Your task to perform on an android device: turn on the 24-hour format for clock Image 0: 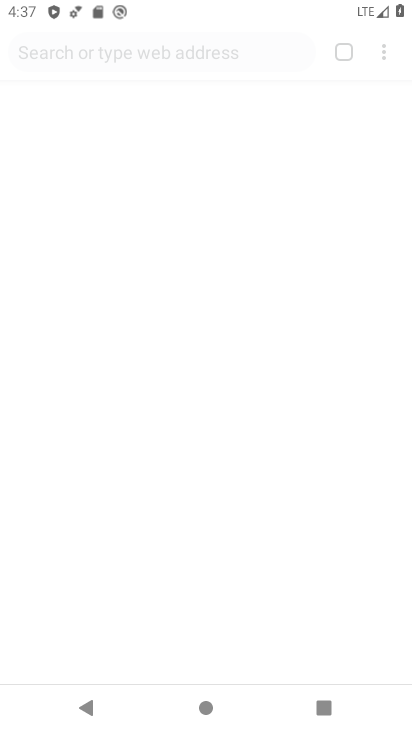
Step 0: drag from (280, 556) to (190, 72)
Your task to perform on an android device: turn on the 24-hour format for clock Image 1: 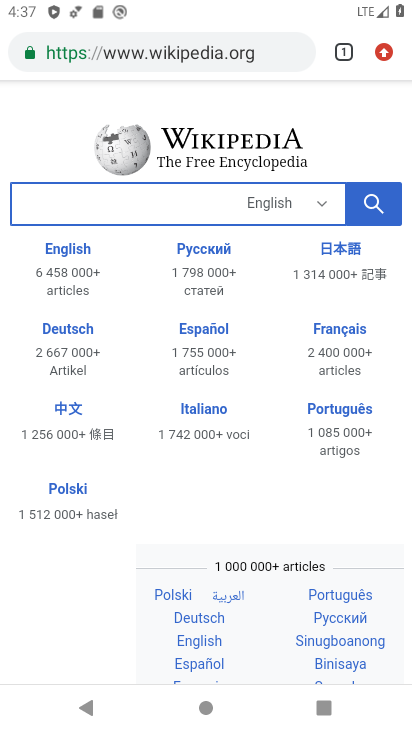
Step 1: press back button
Your task to perform on an android device: turn on the 24-hour format for clock Image 2: 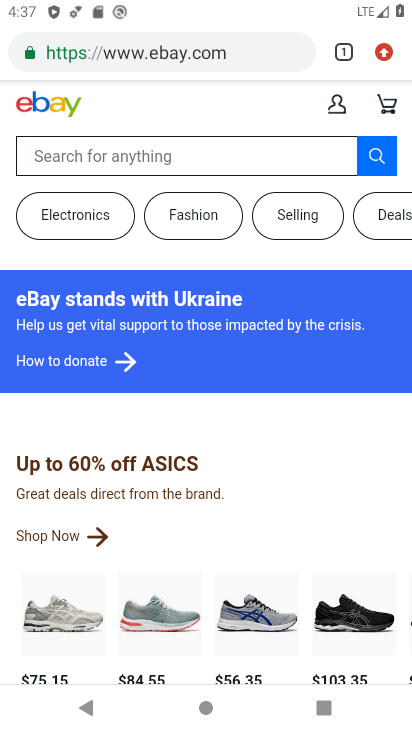
Step 2: press back button
Your task to perform on an android device: turn on the 24-hour format for clock Image 3: 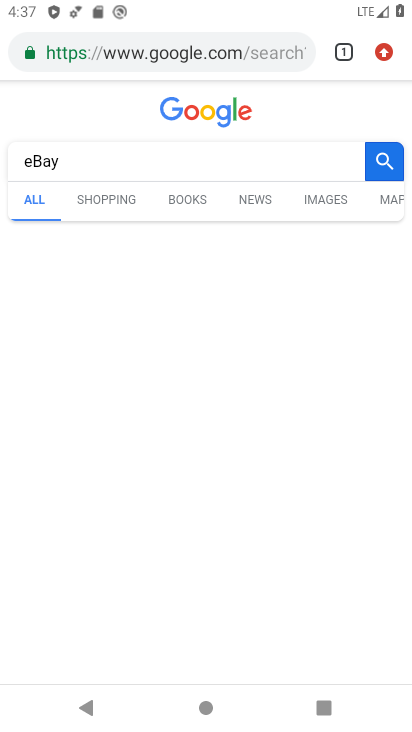
Step 3: press back button
Your task to perform on an android device: turn on the 24-hour format for clock Image 4: 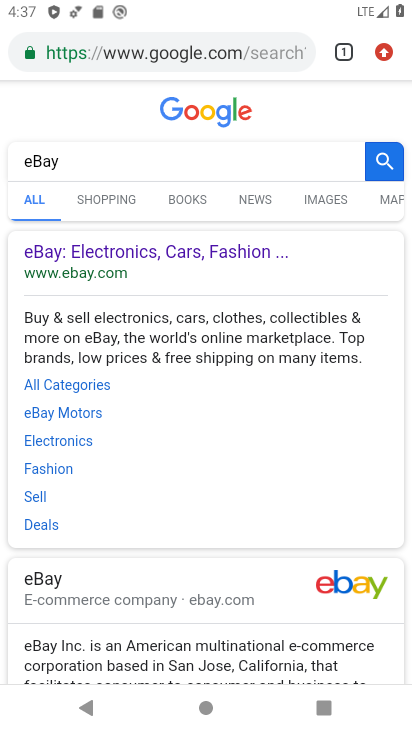
Step 4: press back button
Your task to perform on an android device: turn on the 24-hour format for clock Image 5: 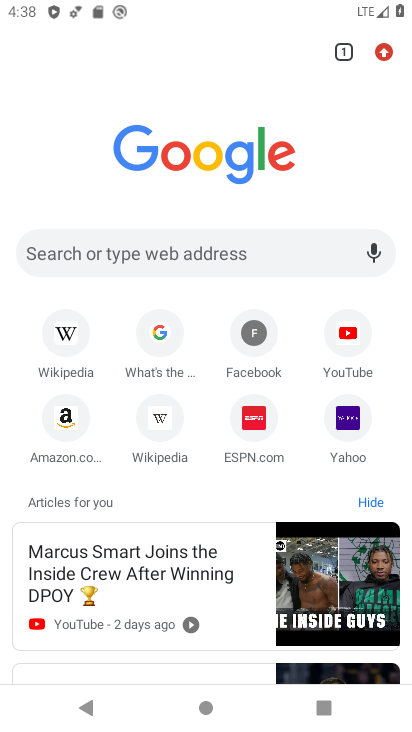
Step 5: press back button
Your task to perform on an android device: turn on the 24-hour format for clock Image 6: 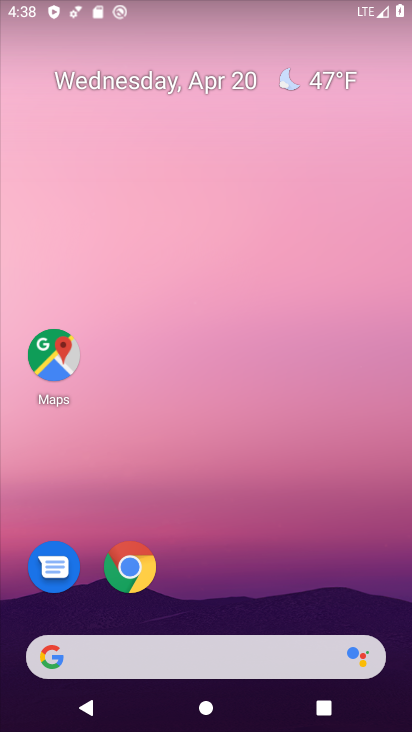
Step 6: drag from (250, 241) to (237, 31)
Your task to perform on an android device: turn on the 24-hour format for clock Image 7: 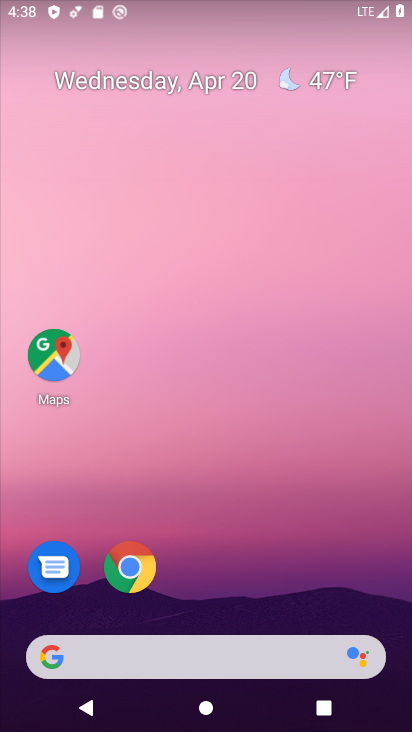
Step 7: drag from (407, 648) to (357, 47)
Your task to perform on an android device: turn on the 24-hour format for clock Image 8: 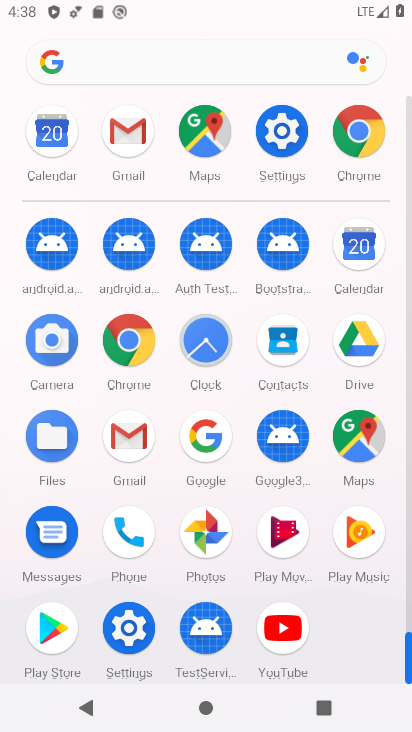
Step 8: click (203, 340)
Your task to perform on an android device: turn on the 24-hour format for clock Image 9: 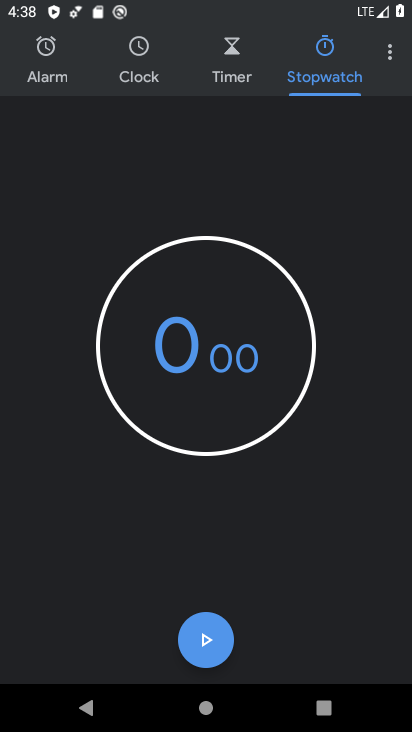
Step 9: click (376, 62)
Your task to perform on an android device: turn on the 24-hour format for clock Image 10: 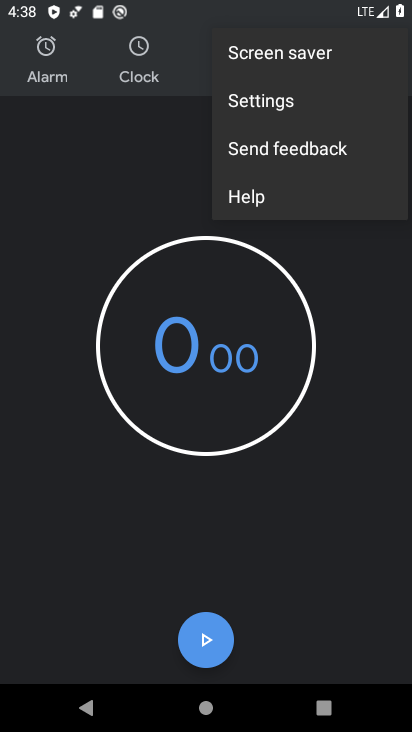
Step 10: click (307, 99)
Your task to perform on an android device: turn on the 24-hour format for clock Image 11: 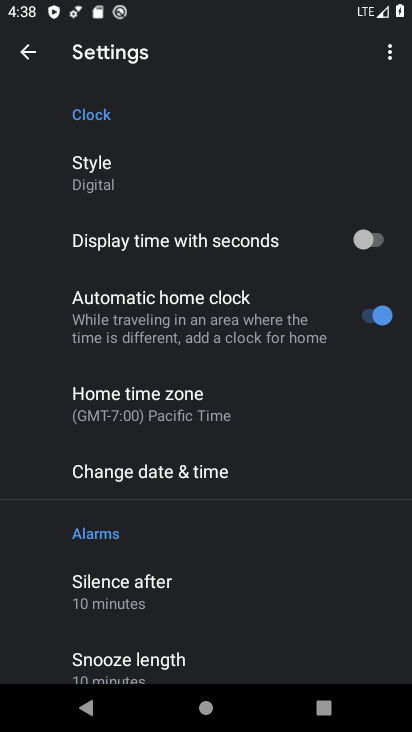
Step 11: drag from (225, 527) to (243, 73)
Your task to perform on an android device: turn on the 24-hour format for clock Image 12: 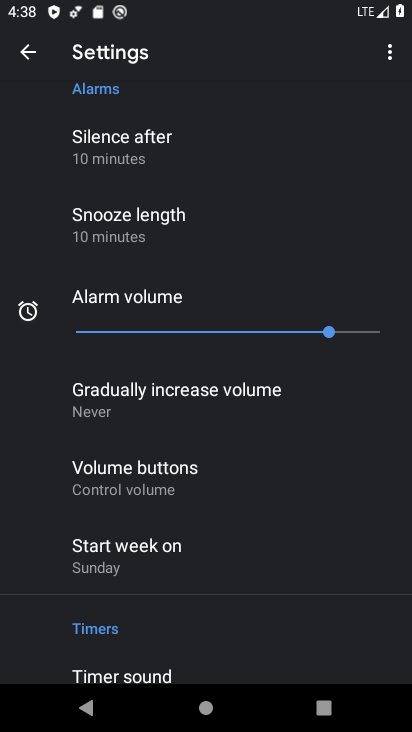
Step 12: drag from (209, 456) to (214, 91)
Your task to perform on an android device: turn on the 24-hour format for clock Image 13: 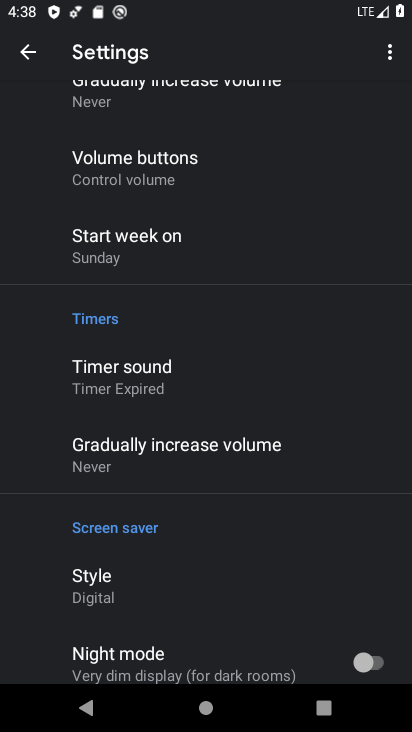
Step 13: drag from (219, 175) to (190, 526)
Your task to perform on an android device: turn on the 24-hour format for clock Image 14: 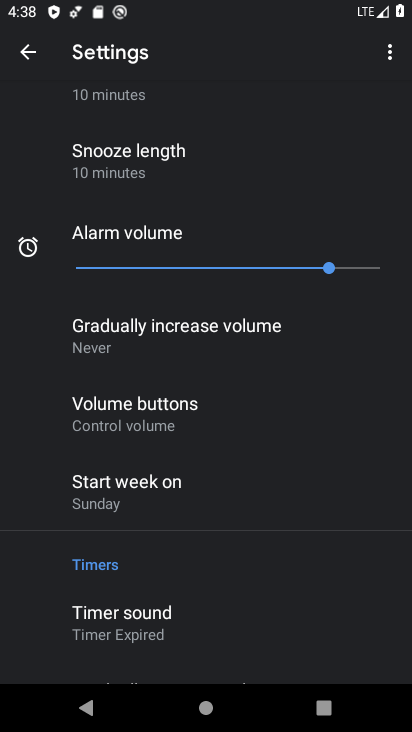
Step 14: drag from (204, 177) to (203, 560)
Your task to perform on an android device: turn on the 24-hour format for clock Image 15: 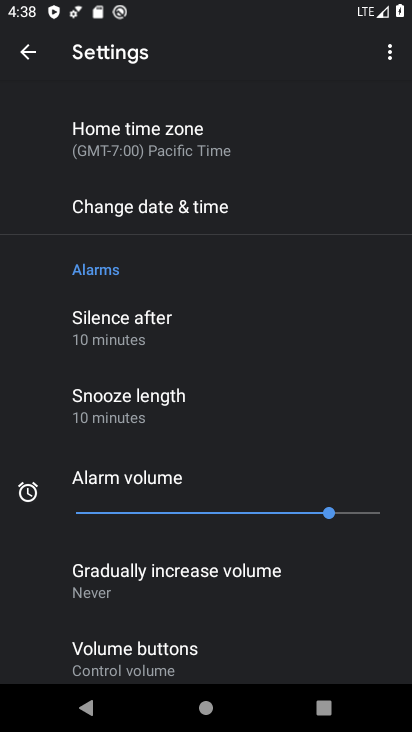
Step 15: click (206, 214)
Your task to perform on an android device: turn on the 24-hour format for clock Image 16: 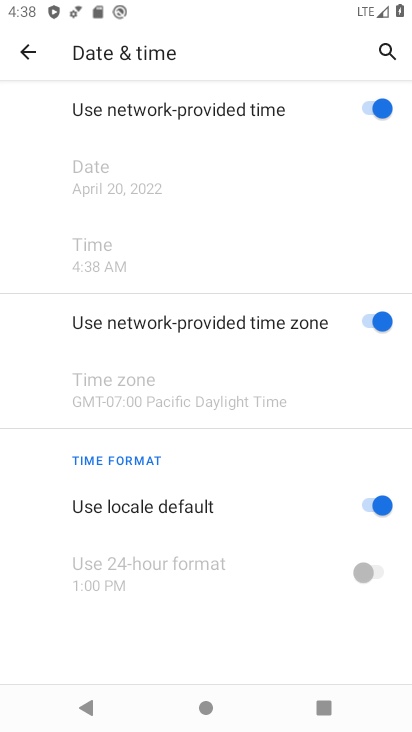
Step 16: click (382, 481)
Your task to perform on an android device: turn on the 24-hour format for clock Image 17: 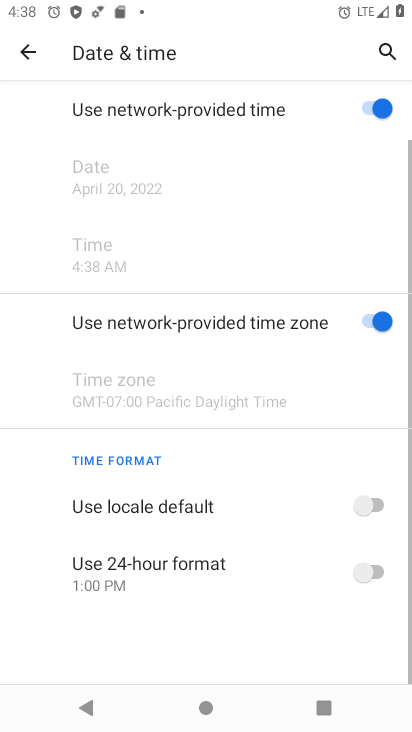
Step 17: click (367, 563)
Your task to perform on an android device: turn on the 24-hour format for clock Image 18: 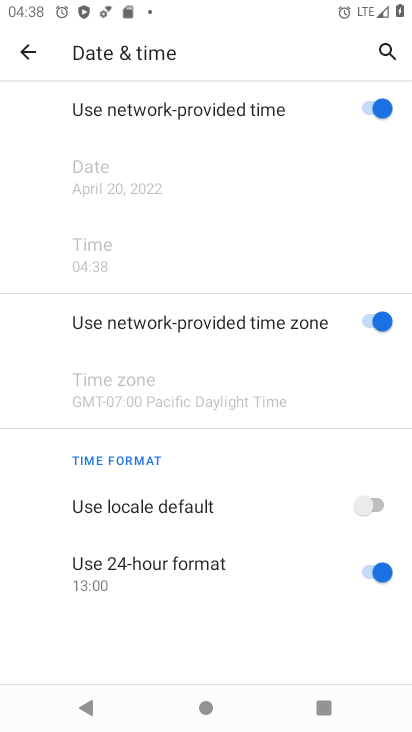
Step 18: task complete